Your task to perform on an android device: Go to calendar. Show me events next week Image 0: 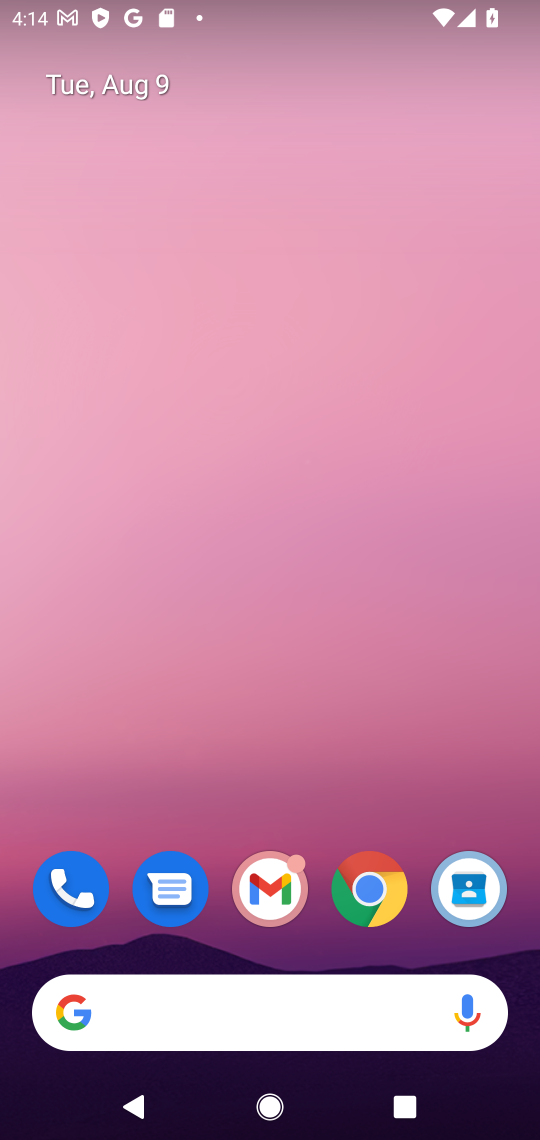
Step 0: drag from (360, 751) to (398, 0)
Your task to perform on an android device: Go to calendar. Show me events next week Image 1: 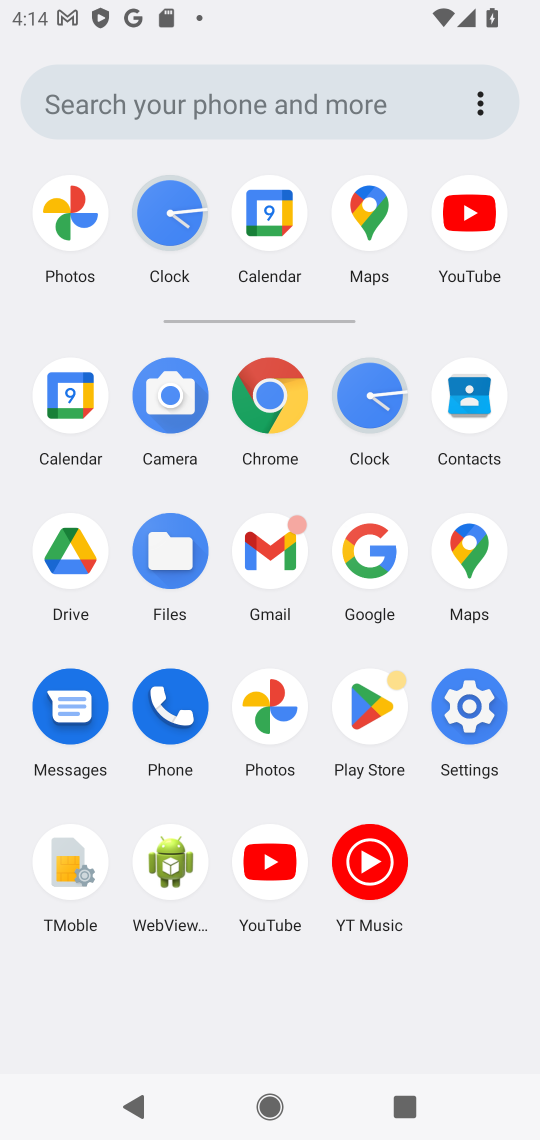
Step 1: click (281, 216)
Your task to perform on an android device: Go to calendar. Show me events next week Image 2: 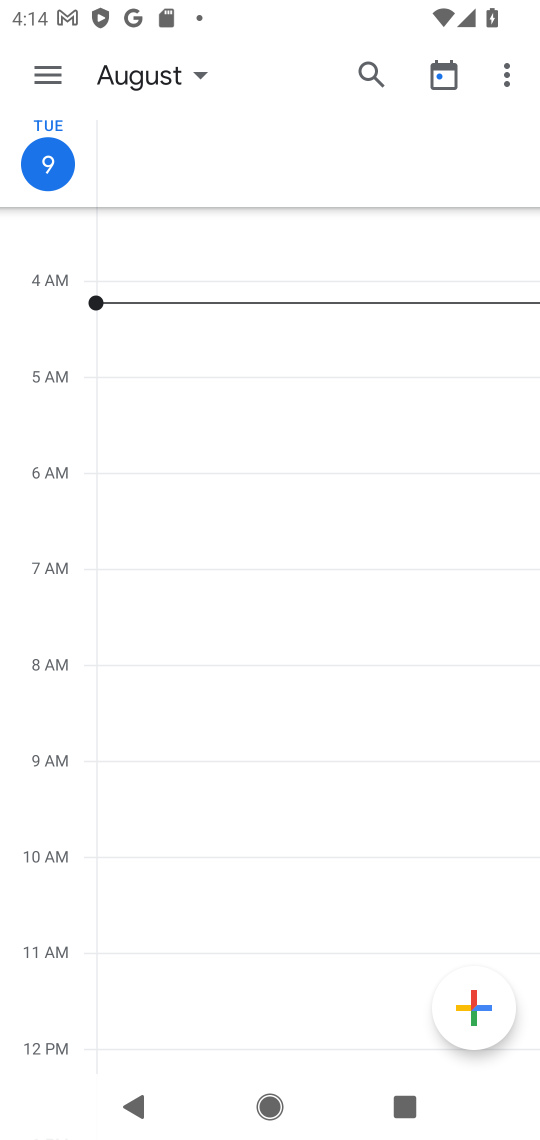
Step 2: click (46, 76)
Your task to perform on an android device: Go to calendar. Show me events next week Image 3: 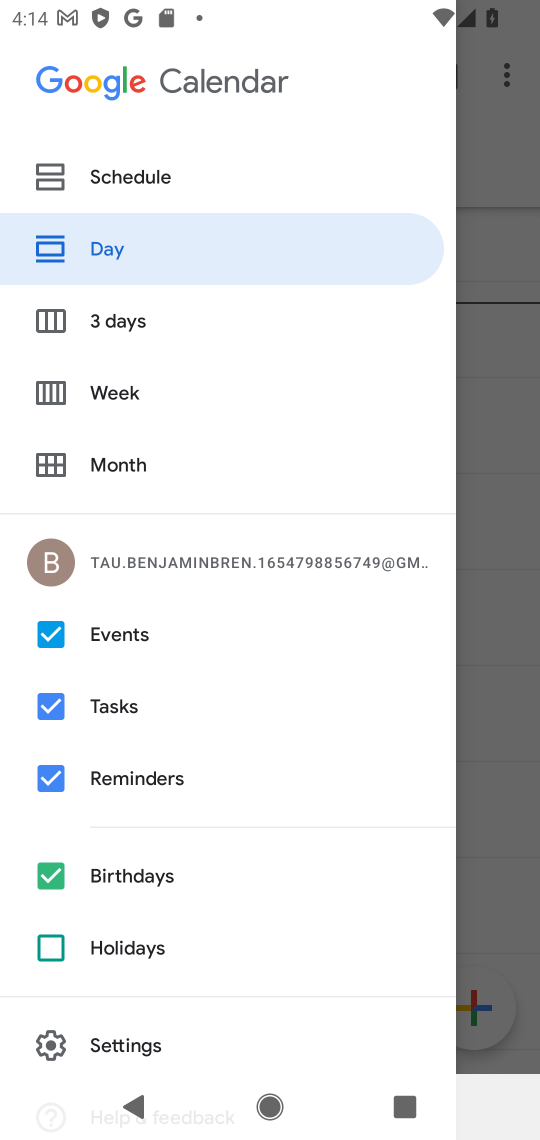
Step 3: click (64, 376)
Your task to perform on an android device: Go to calendar. Show me events next week Image 4: 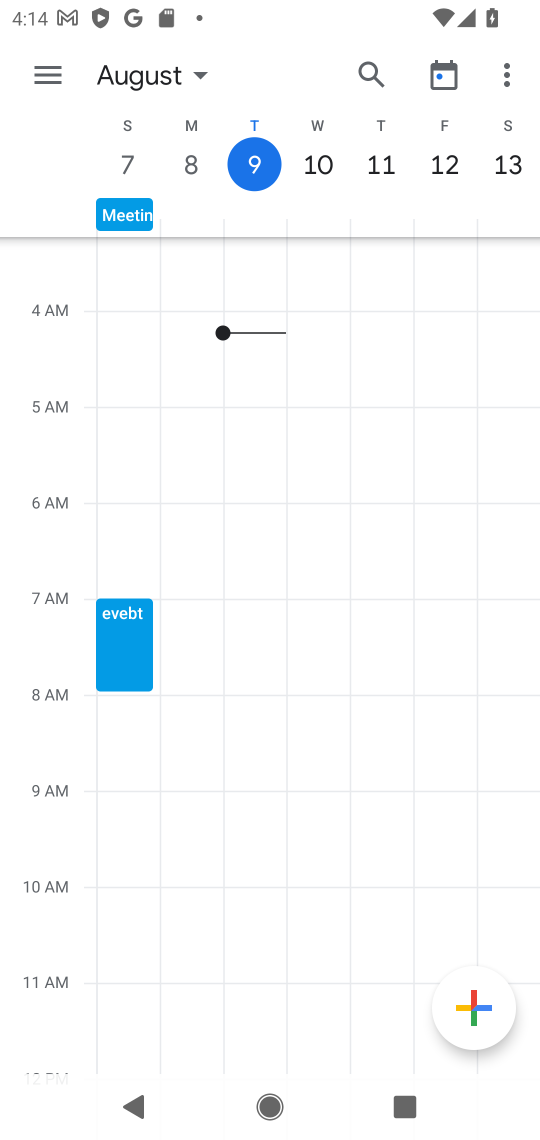
Step 4: task complete